Your task to perform on an android device: empty trash in the gmail app Image 0: 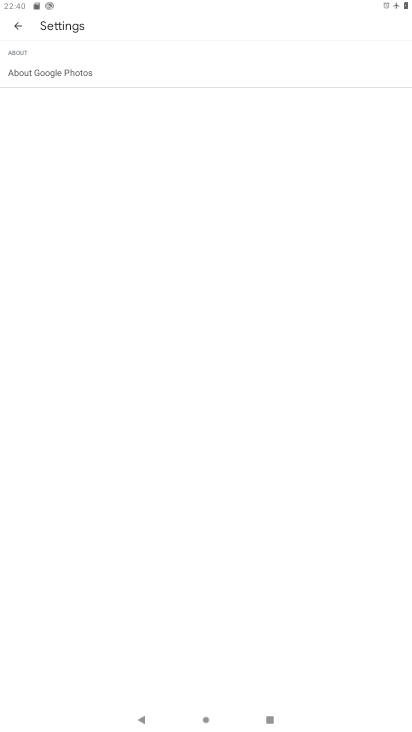
Step 0: press home button
Your task to perform on an android device: empty trash in the gmail app Image 1: 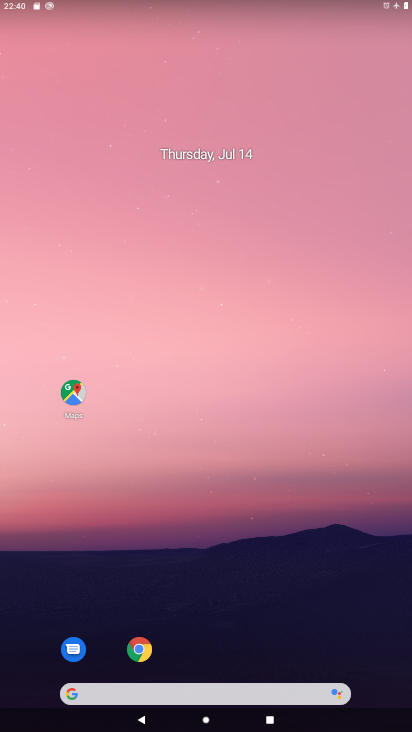
Step 1: drag from (188, 719) to (202, 41)
Your task to perform on an android device: empty trash in the gmail app Image 2: 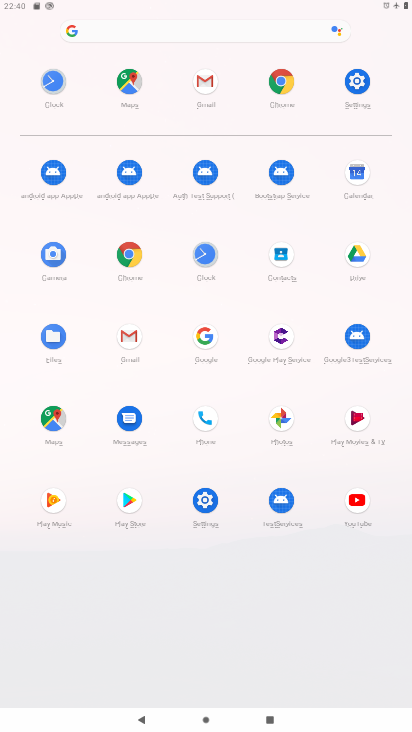
Step 2: click (209, 68)
Your task to perform on an android device: empty trash in the gmail app Image 3: 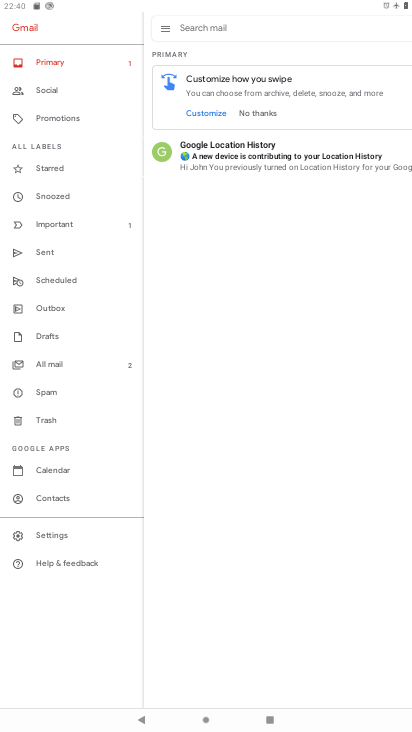
Step 3: click (82, 420)
Your task to perform on an android device: empty trash in the gmail app Image 4: 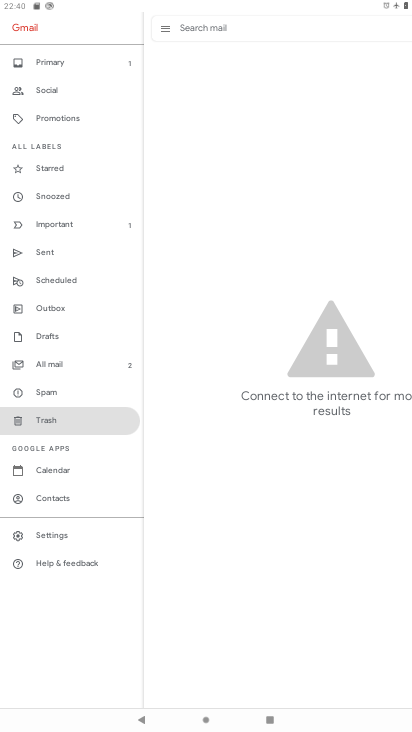
Step 4: task complete